Your task to perform on an android device: Open Google Chrome and open the bookmarks view Image 0: 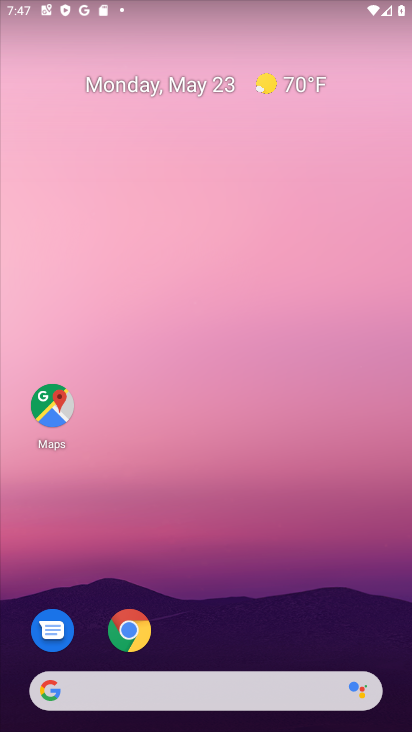
Step 0: press home button
Your task to perform on an android device: Open Google Chrome and open the bookmarks view Image 1: 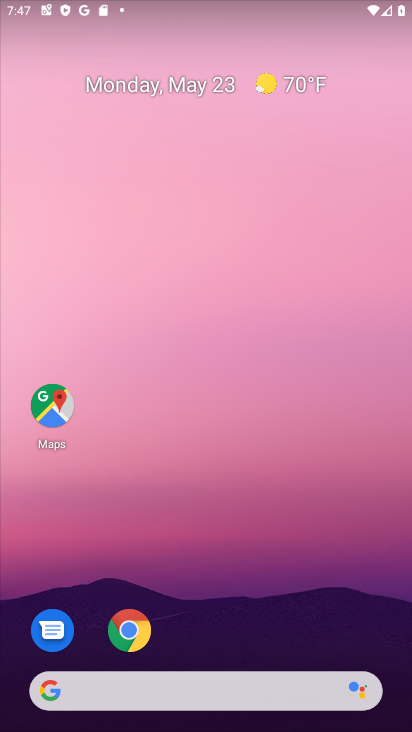
Step 1: drag from (216, 635) to (144, 191)
Your task to perform on an android device: Open Google Chrome and open the bookmarks view Image 2: 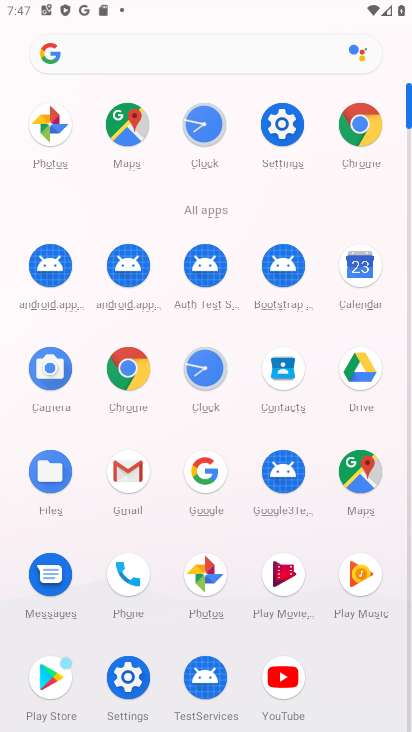
Step 2: click (363, 119)
Your task to perform on an android device: Open Google Chrome and open the bookmarks view Image 3: 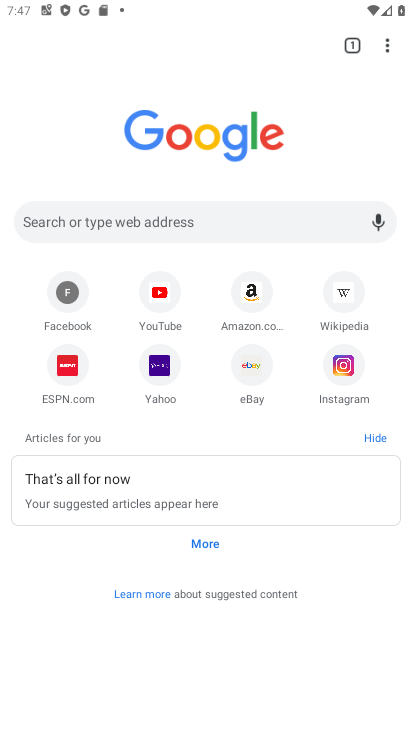
Step 3: click (382, 54)
Your task to perform on an android device: Open Google Chrome and open the bookmarks view Image 4: 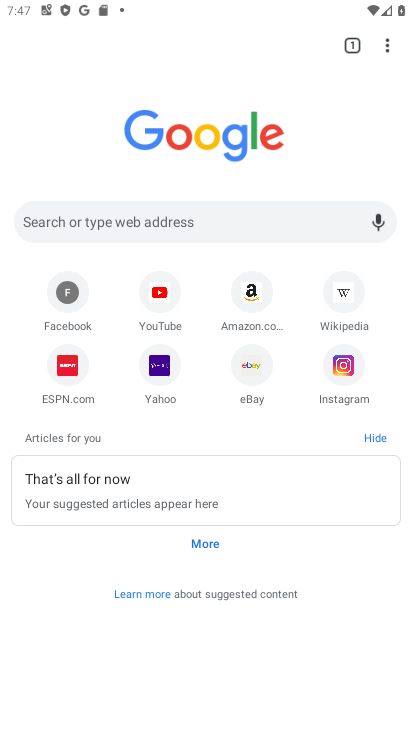
Step 4: task complete